Your task to perform on an android device: change the clock style Image 0: 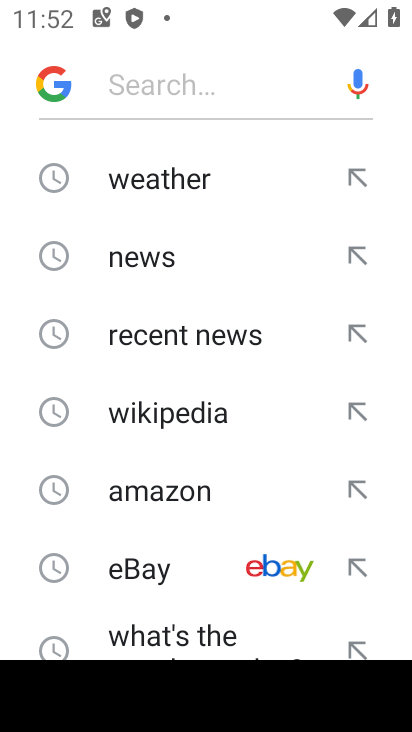
Step 0: press home button
Your task to perform on an android device: change the clock style Image 1: 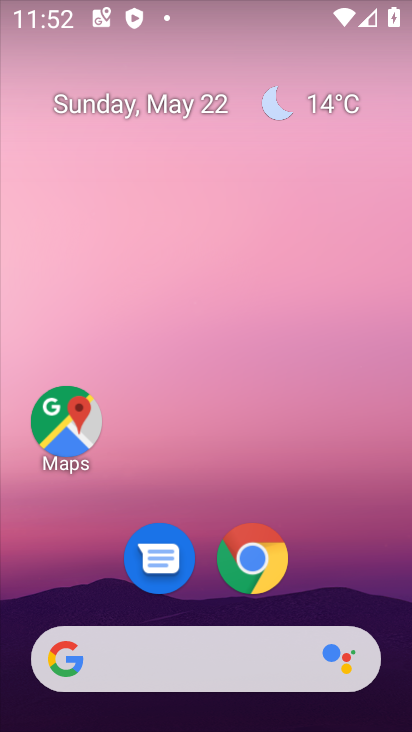
Step 1: drag from (328, 592) to (335, 34)
Your task to perform on an android device: change the clock style Image 2: 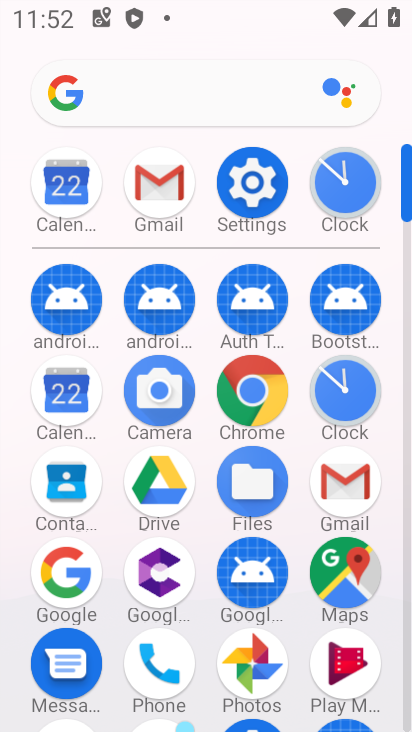
Step 2: click (336, 181)
Your task to perform on an android device: change the clock style Image 3: 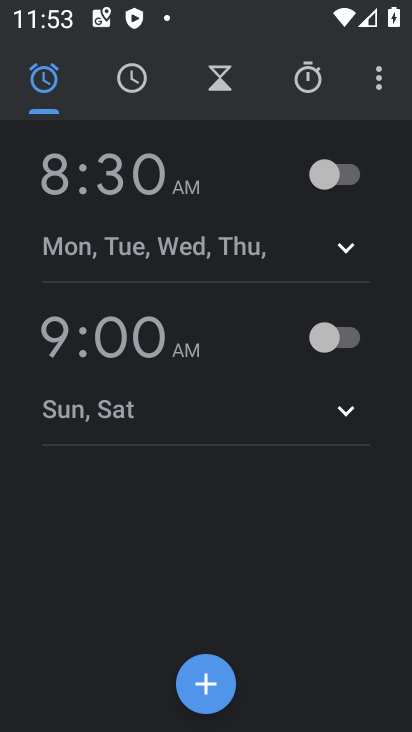
Step 3: click (381, 86)
Your task to perform on an android device: change the clock style Image 4: 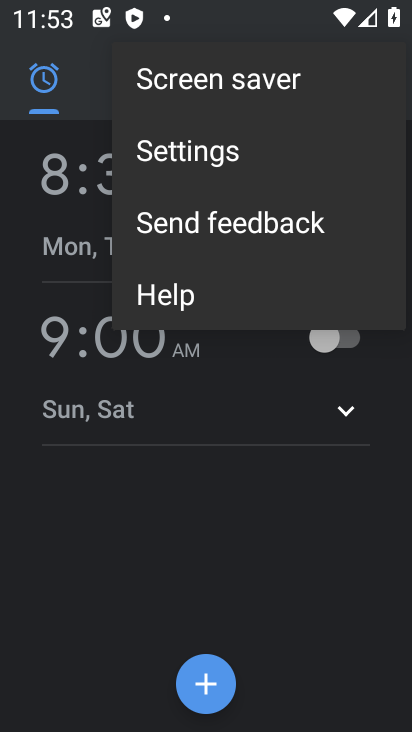
Step 4: click (196, 164)
Your task to perform on an android device: change the clock style Image 5: 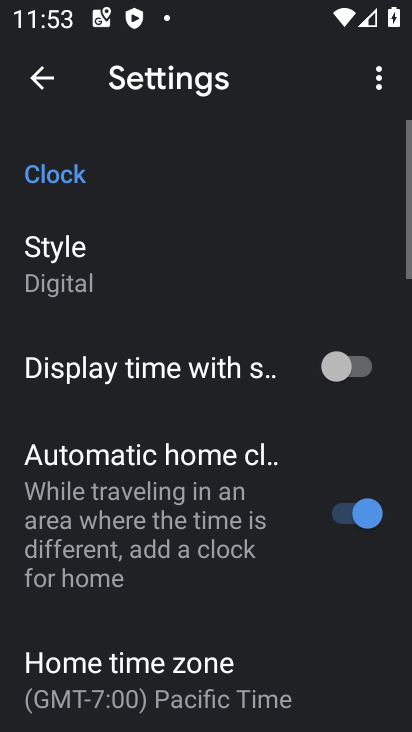
Step 5: click (67, 276)
Your task to perform on an android device: change the clock style Image 6: 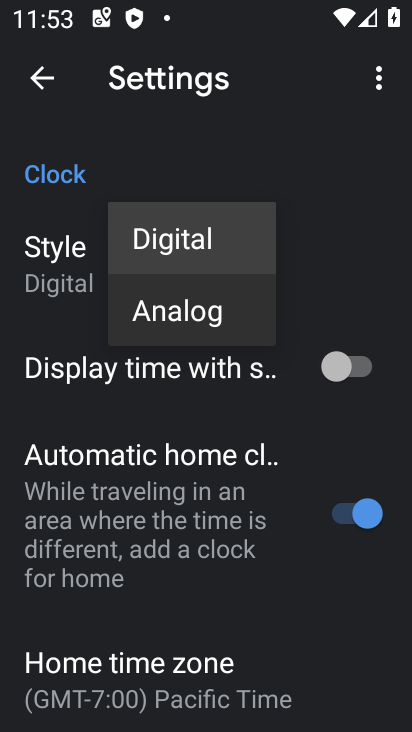
Step 6: click (190, 317)
Your task to perform on an android device: change the clock style Image 7: 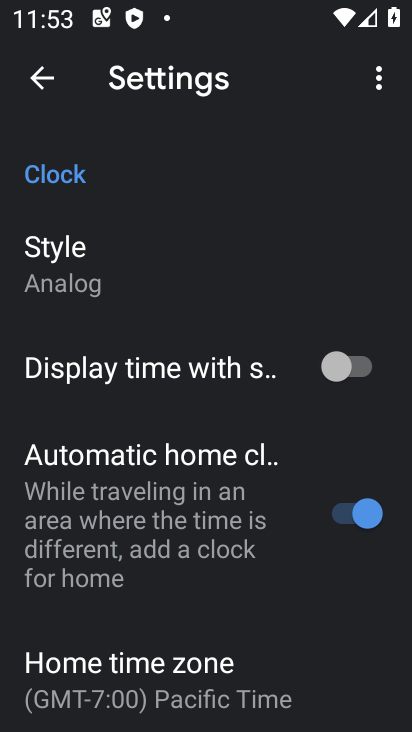
Step 7: task complete